Your task to perform on an android device: Go to Reddit.com Image 0: 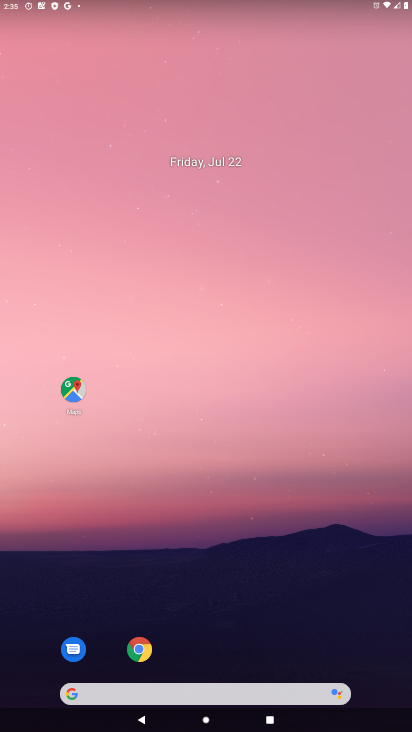
Step 0: drag from (313, 587) to (312, 96)
Your task to perform on an android device: Go to Reddit.com Image 1: 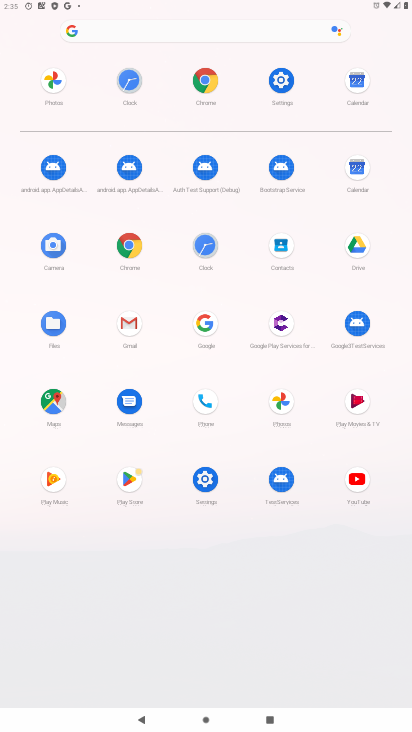
Step 1: click (207, 78)
Your task to perform on an android device: Go to Reddit.com Image 2: 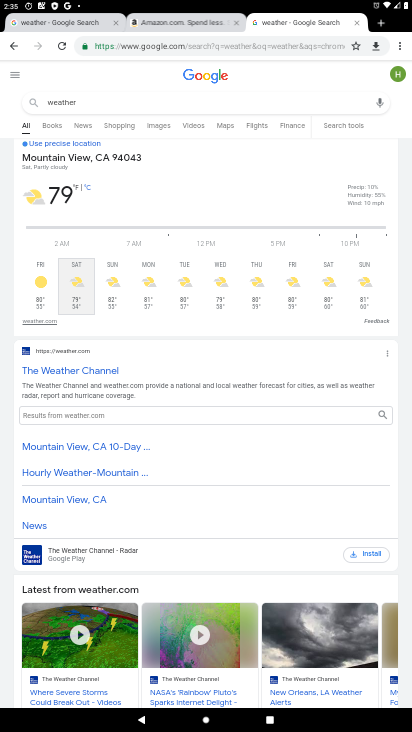
Step 2: click (253, 48)
Your task to perform on an android device: Go to Reddit.com Image 3: 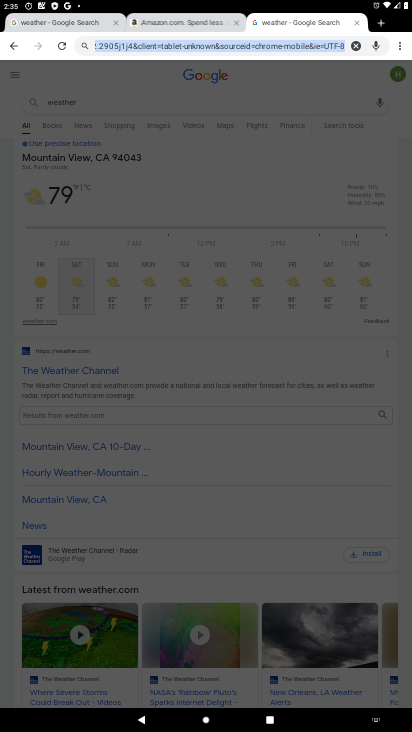
Step 3: type "reddit.com"
Your task to perform on an android device: Go to Reddit.com Image 4: 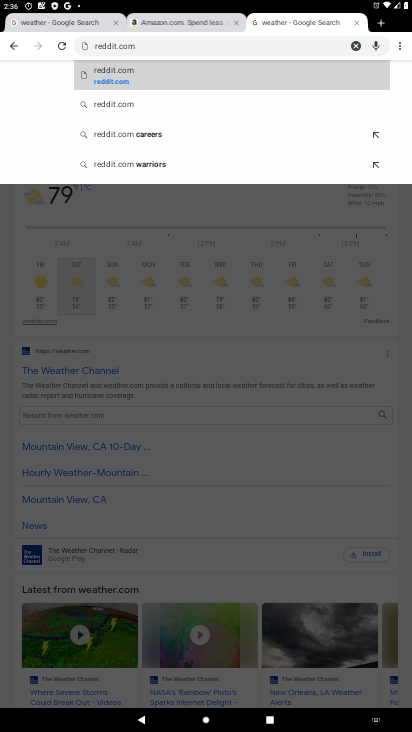
Step 4: click (193, 80)
Your task to perform on an android device: Go to Reddit.com Image 5: 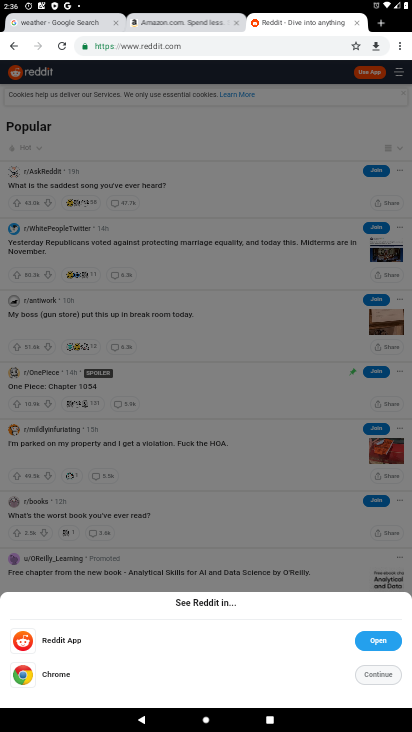
Step 5: task complete